Your task to perform on an android device: change timer sound Image 0: 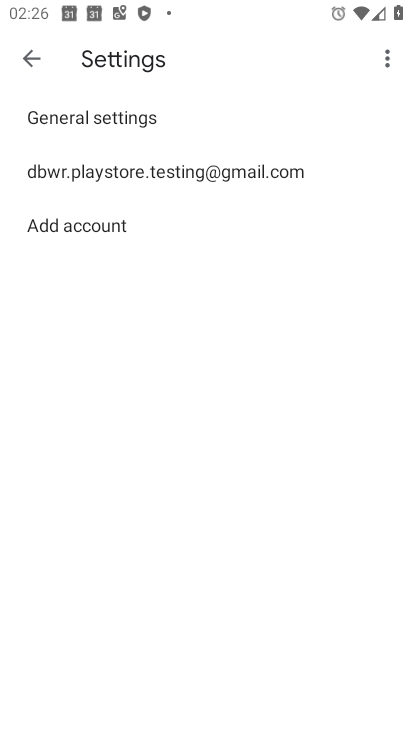
Step 0: press home button
Your task to perform on an android device: change timer sound Image 1: 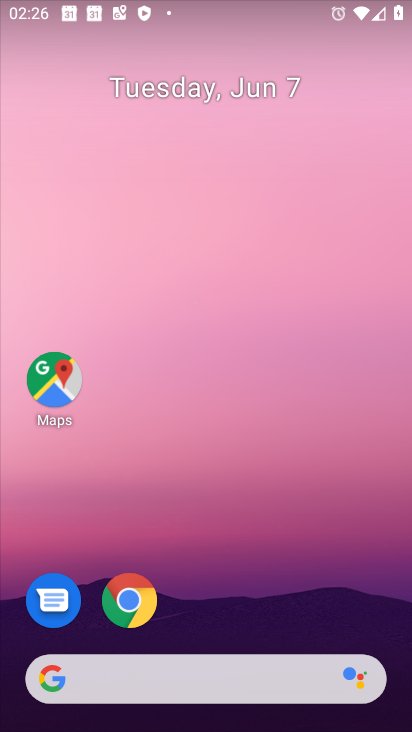
Step 1: drag from (200, 689) to (183, 242)
Your task to perform on an android device: change timer sound Image 2: 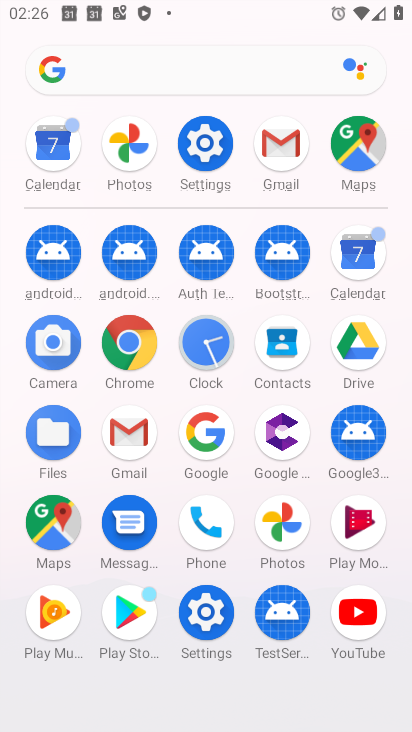
Step 2: click (209, 341)
Your task to perform on an android device: change timer sound Image 3: 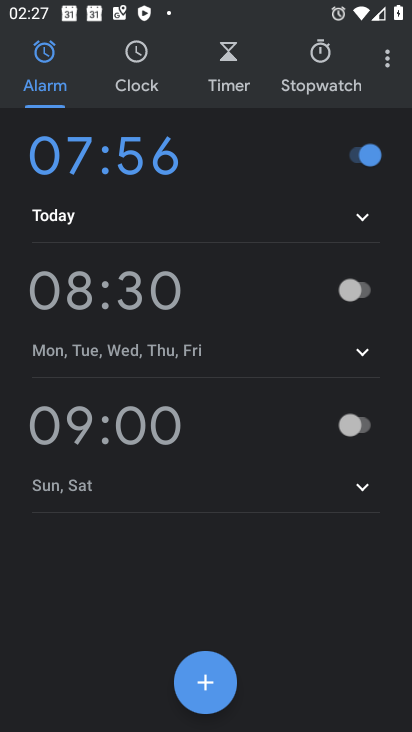
Step 3: click (391, 62)
Your task to perform on an android device: change timer sound Image 4: 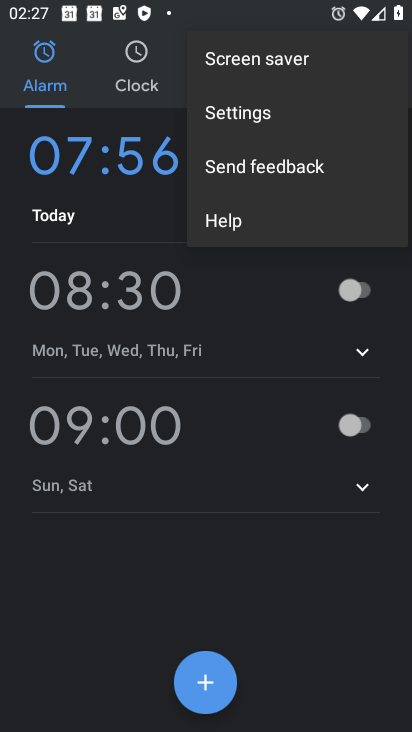
Step 4: click (237, 112)
Your task to perform on an android device: change timer sound Image 5: 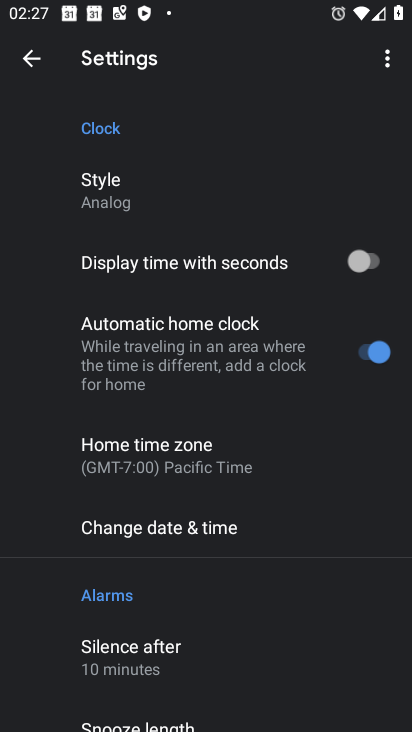
Step 5: drag from (171, 643) to (143, 296)
Your task to perform on an android device: change timer sound Image 6: 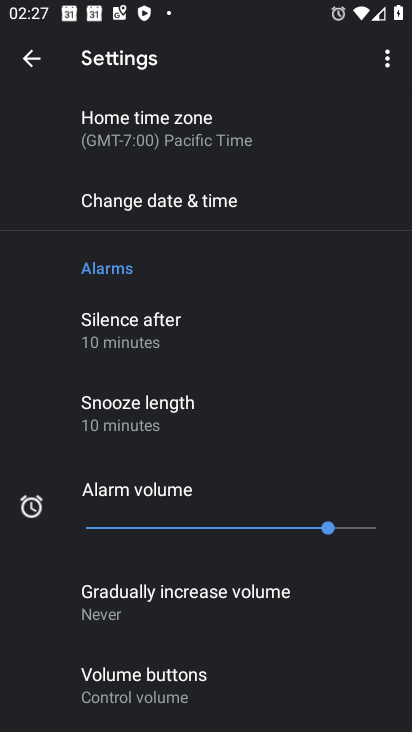
Step 6: drag from (177, 647) to (187, 239)
Your task to perform on an android device: change timer sound Image 7: 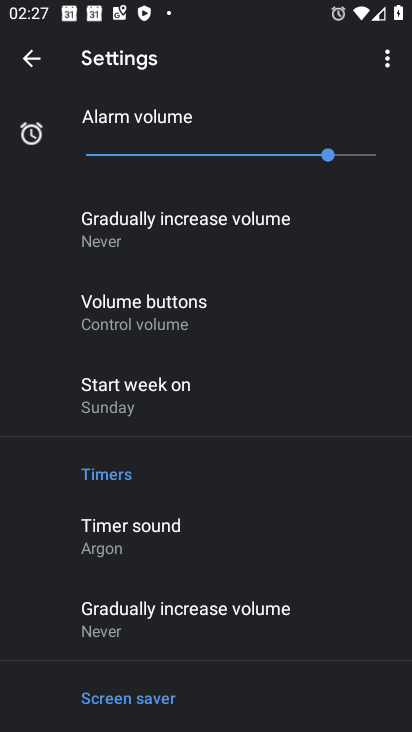
Step 7: click (171, 526)
Your task to perform on an android device: change timer sound Image 8: 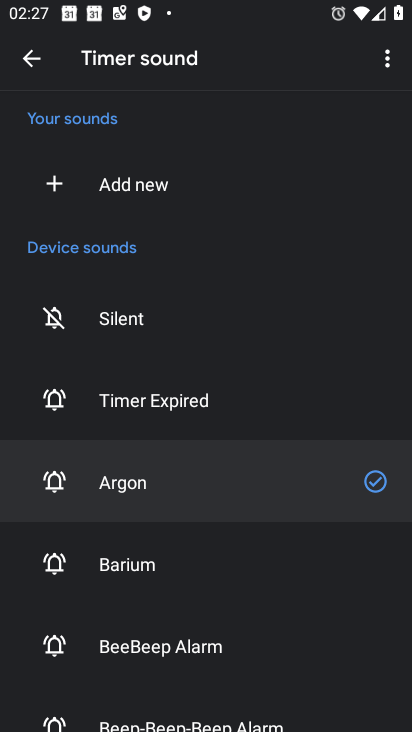
Step 8: click (115, 645)
Your task to perform on an android device: change timer sound Image 9: 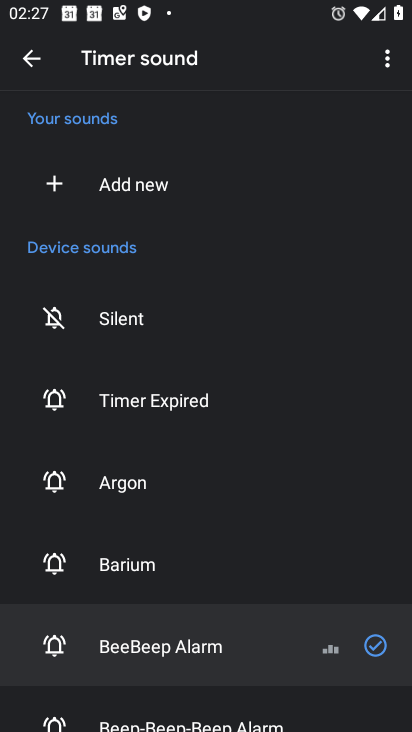
Step 9: task complete